Your task to perform on an android device: turn on improve location accuracy Image 0: 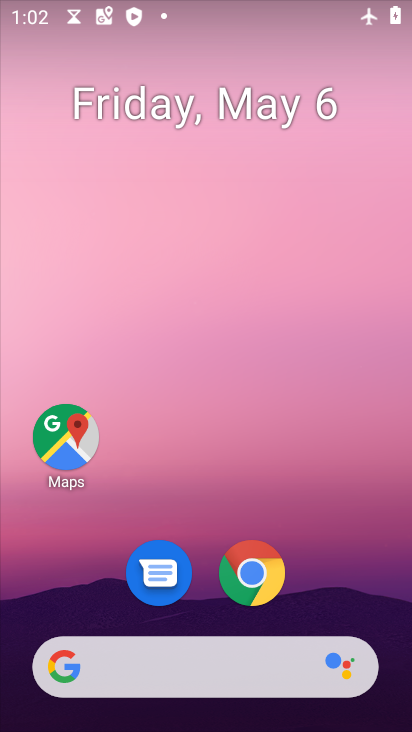
Step 0: drag from (341, 501) to (348, 265)
Your task to perform on an android device: turn on improve location accuracy Image 1: 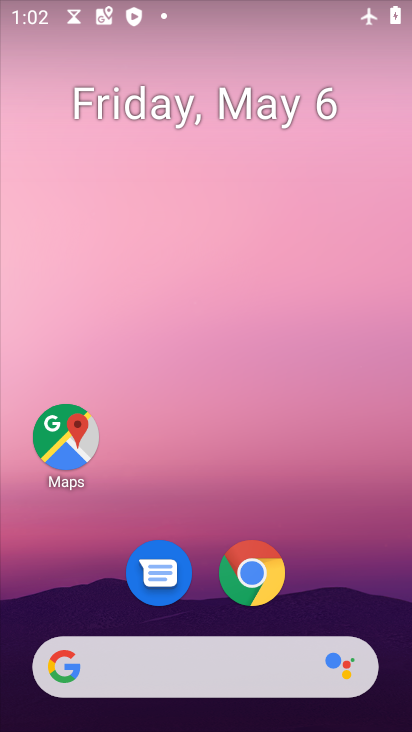
Step 1: drag from (353, 471) to (353, 258)
Your task to perform on an android device: turn on improve location accuracy Image 2: 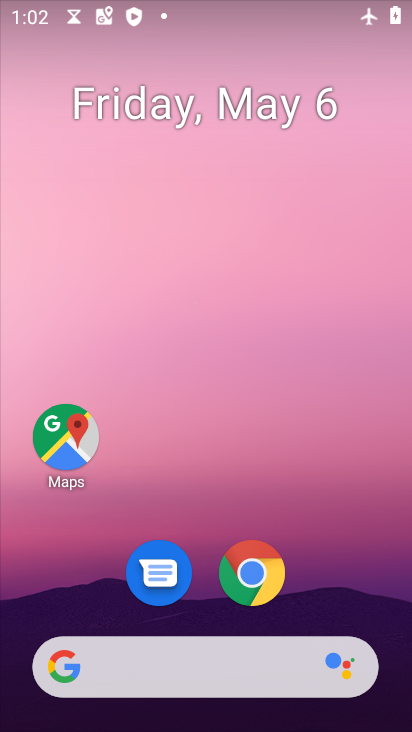
Step 2: drag from (325, 529) to (305, 204)
Your task to perform on an android device: turn on improve location accuracy Image 3: 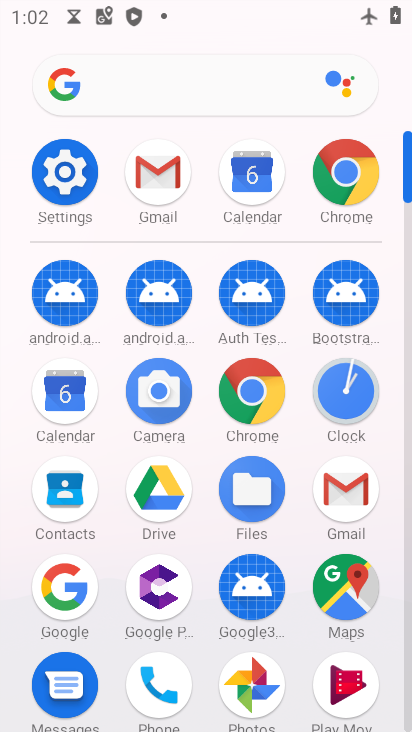
Step 3: click (60, 170)
Your task to perform on an android device: turn on improve location accuracy Image 4: 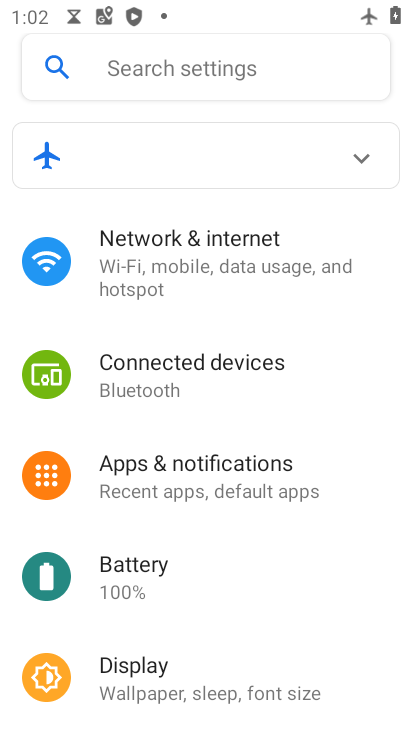
Step 4: drag from (185, 640) to (220, 244)
Your task to perform on an android device: turn on improve location accuracy Image 5: 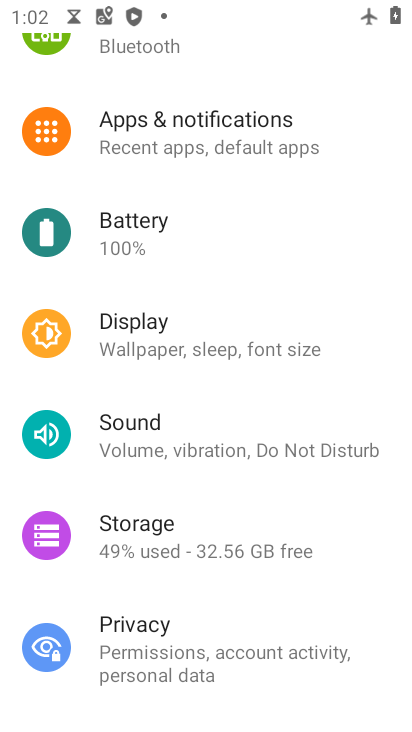
Step 5: drag from (213, 662) to (259, 177)
Your task to perform on an android device: turn on improve location accuracy Image 6: 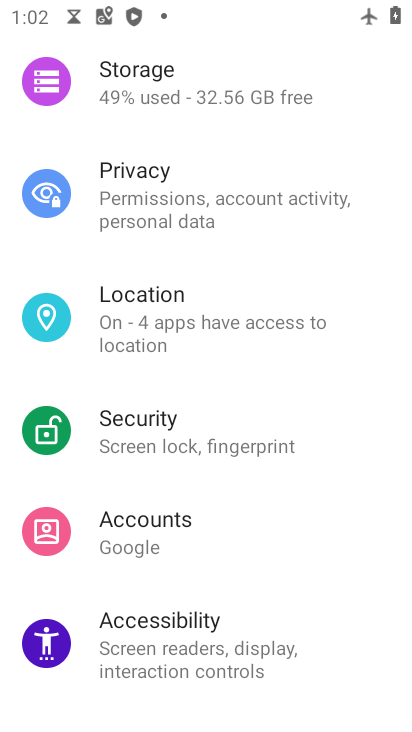
Step 6: click (151, 292)
Your task to perform on an android device: turn on improve location accuracy Image 7: 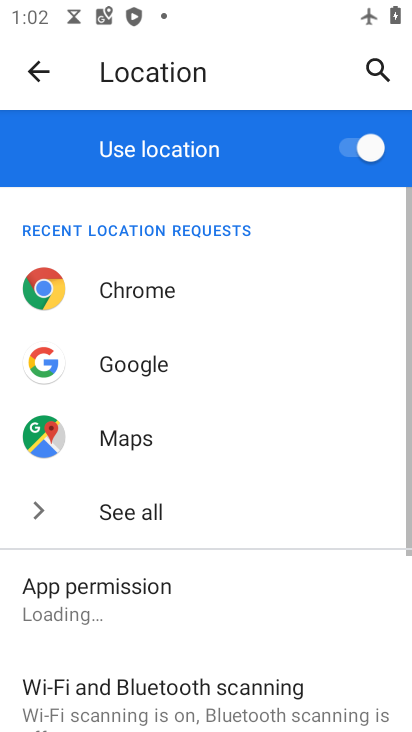
Step 7: drag from (146, 637) to (258, 351)
Your task to perform on an android device: turn on improve location accuracy Image 8: 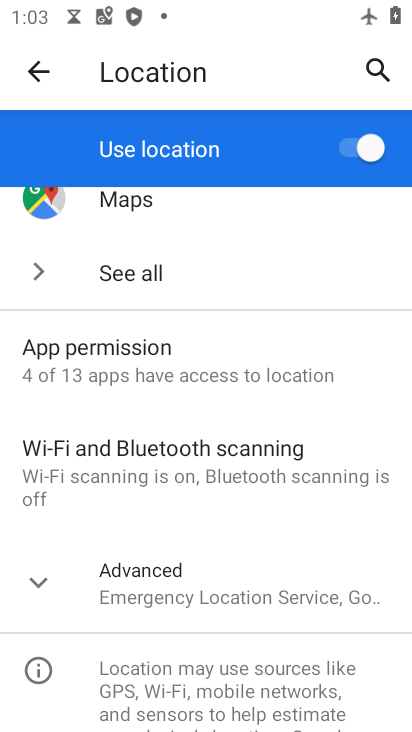
Step 8: click (159, 610)
Your task to perform on an android device: turn on improve location accuracy Image 9: 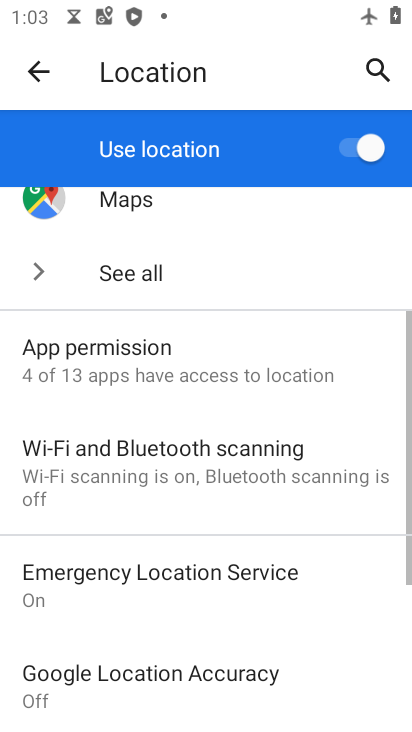
Step 9: drag from (261, 678) to (282, 475)
Your task to perform on an android device: turn on improve location accuracy Image 10: 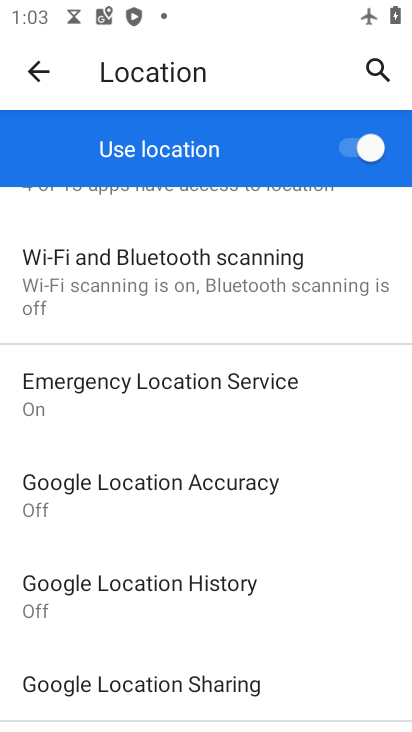
Step 10: click (183, 493)
Your task to perform on an android device: turn on improve location accuracy Image 11: 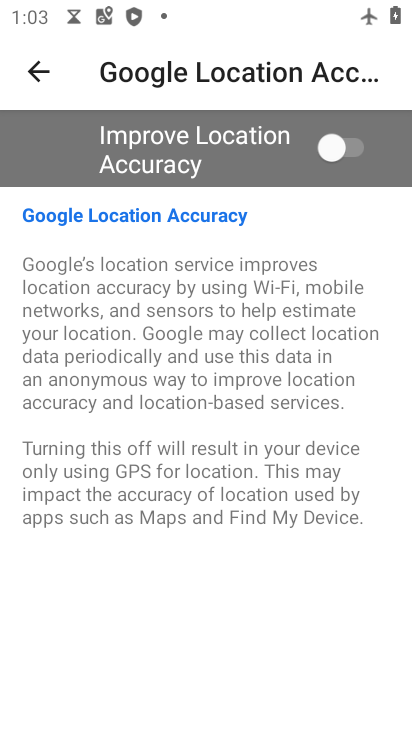
Step 11: click (335, 154)
Your task to perform on an android device: turn on improve location accuracy Image 12: 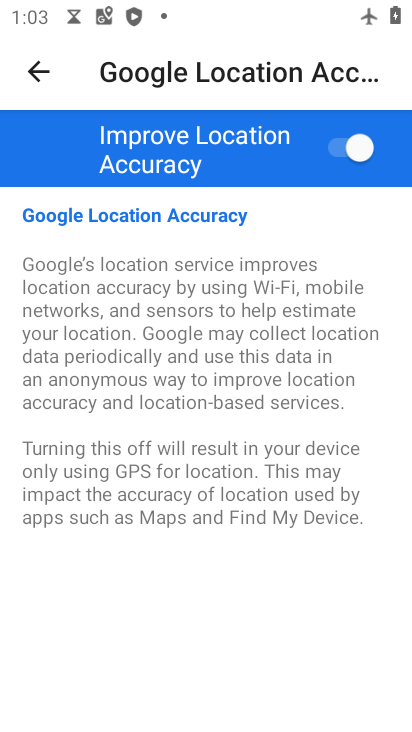
Step 12: task complete